Your task to perform on an android device: snooze an email in the gmail app Image 0: 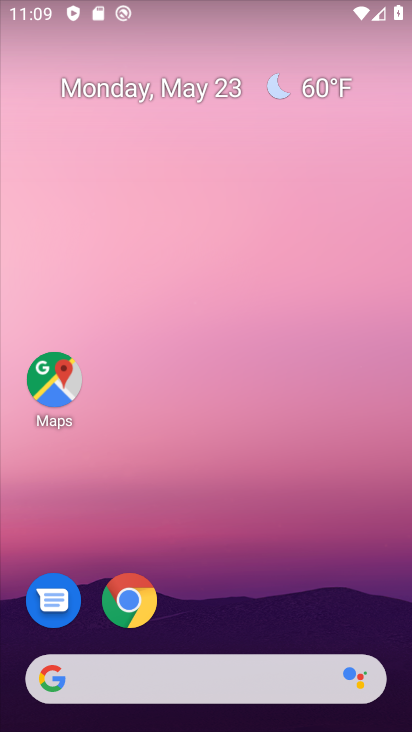
Step 0: drag from (223, 670) to (157, 51)
Your task to perform on an android device: snooze an email in the gmail app Image 1: 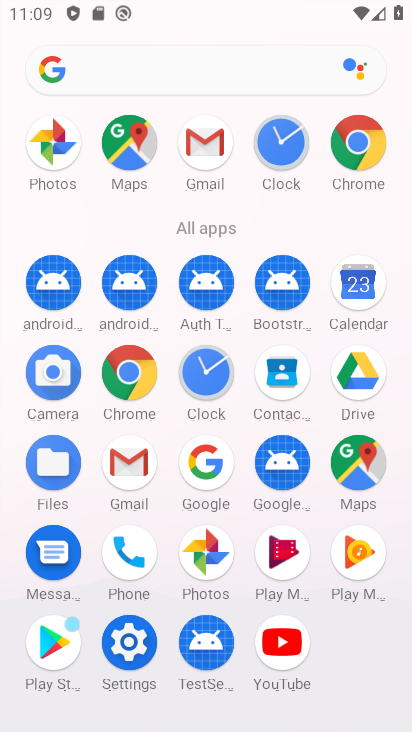
Step 1: click (194, 139)
Your task to perform on an android device: snooze an email in the gmail app Image 2: 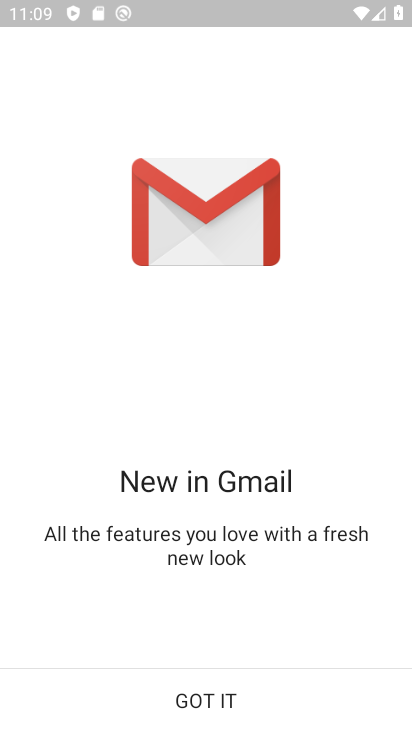
Step 2: click (237, 720)
Your task to perform on an android device: snooze an email in the gmail app Image 3: 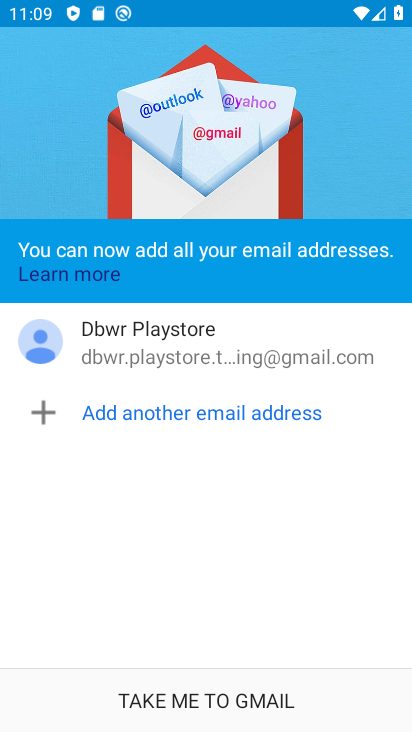
Step 3: click (243, 711)
Your task to perform on an android device: snooze an email in the gmail app Image 4: 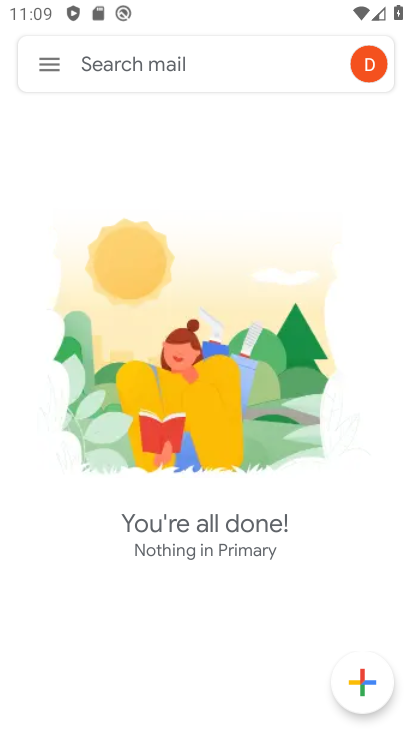
Step 4: click (68, 58)
Your task to perform on an android device: snooze an email in the gmail app Image 5: 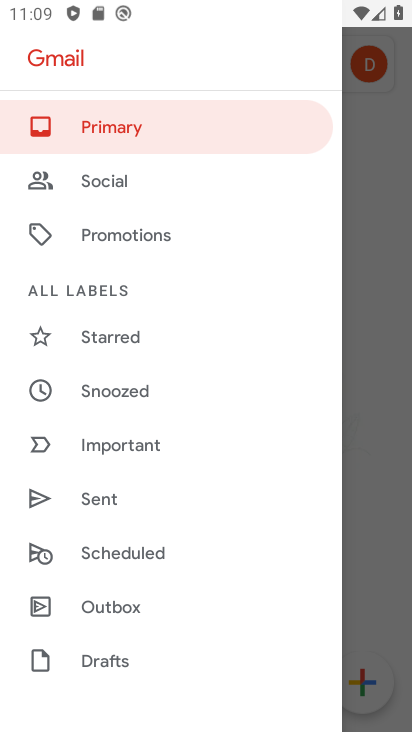
Step 5: click (101, 385)
Your task to perform on an android device: snooze an email in the gmail app Image 6: 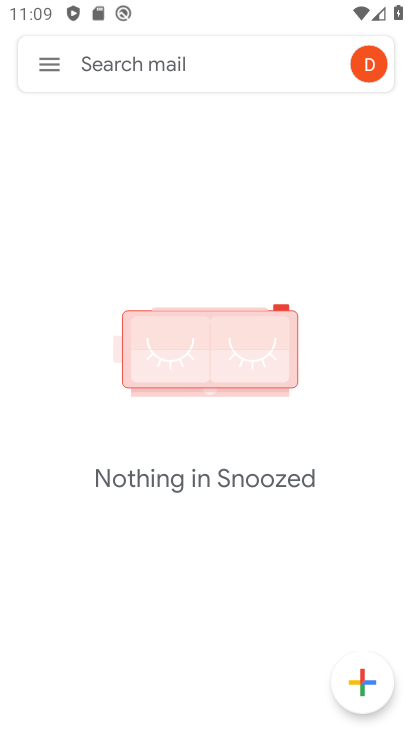
Step 6: task complete